Your task to perform on an android device: Open the web browser Image 0: 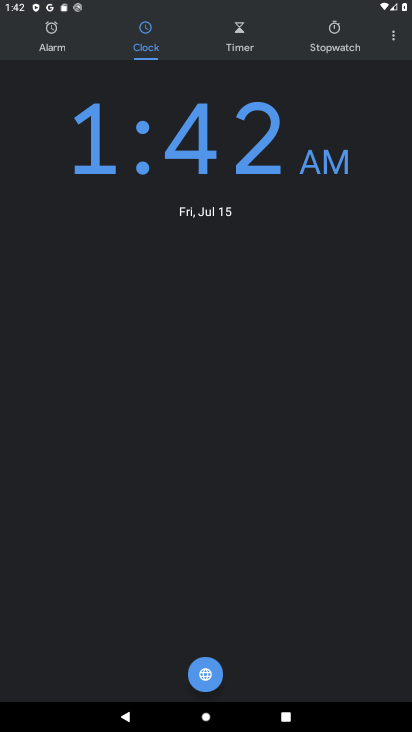
Step 0: press home button
Your task to perform on an android device: Open the web browser Image 1: 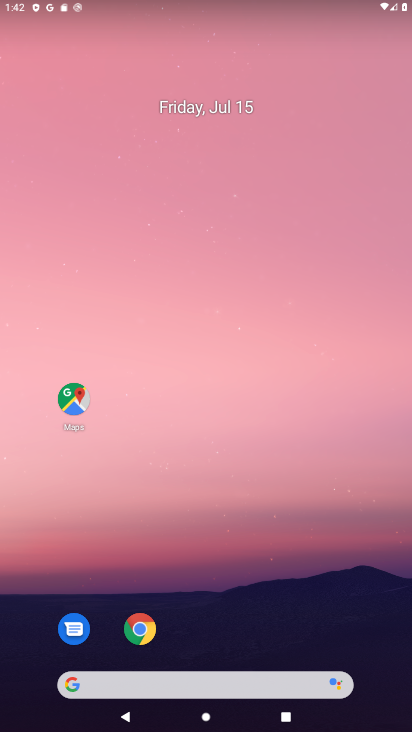
Step 1: click (142, 640)
Your task to perform on an android device: Open the web browser Image 2: 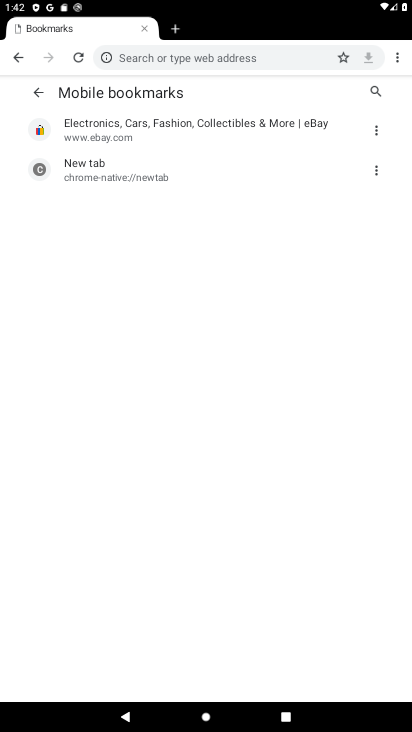
Step 2: task complete